Your task to perform on an android device: Toggle the flashlight Image 0: 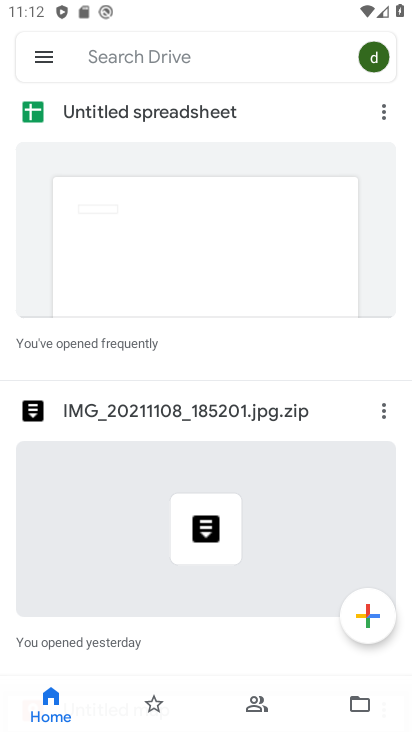
Step 0: press home button
Your task to perform on an android device: Toggle the flashlight Image 1: 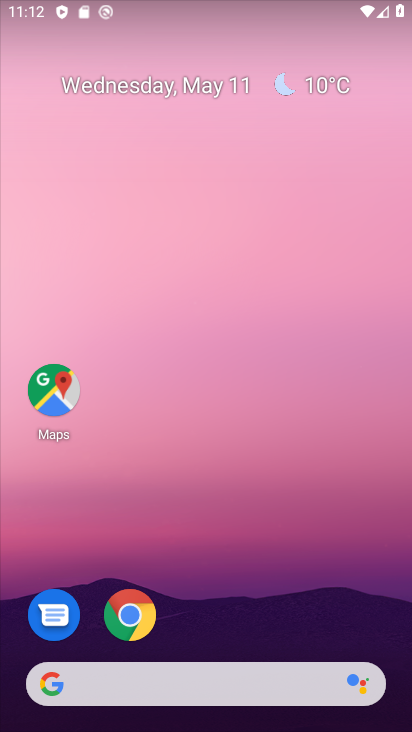
Step 1: drag from (257, 611) to (234, 28)
Your task to perform on an android device: Toggle the flashlight Image 2: 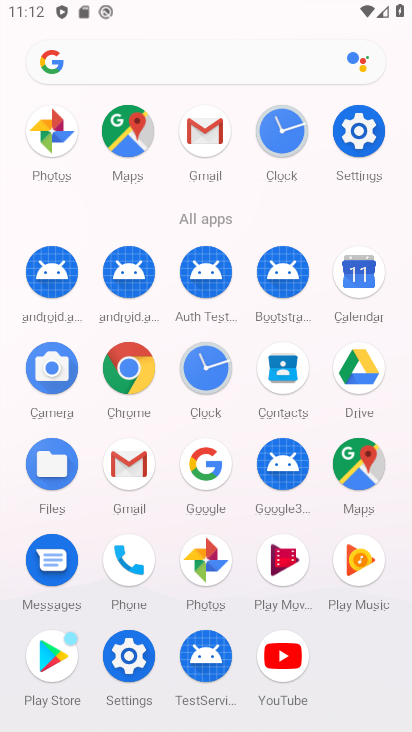
Step 2: click (359, 130)
Your task to perform on an android device: Toggle the flashlight Image 3: 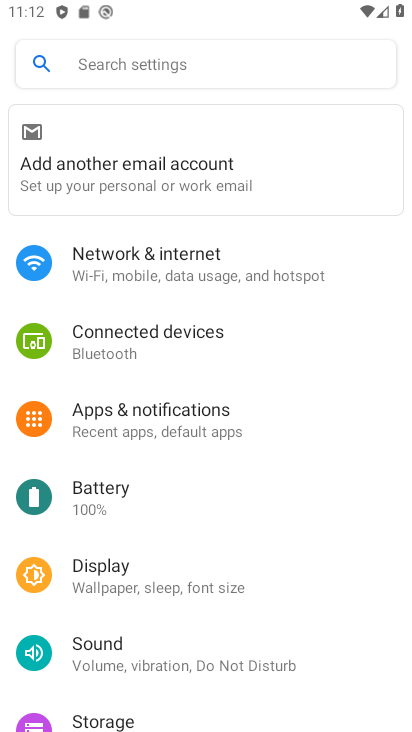
Step 3: drag from (119, 508) to (151, 397)
Your task to perform on an android device: Toggle the flashlight Image 4: 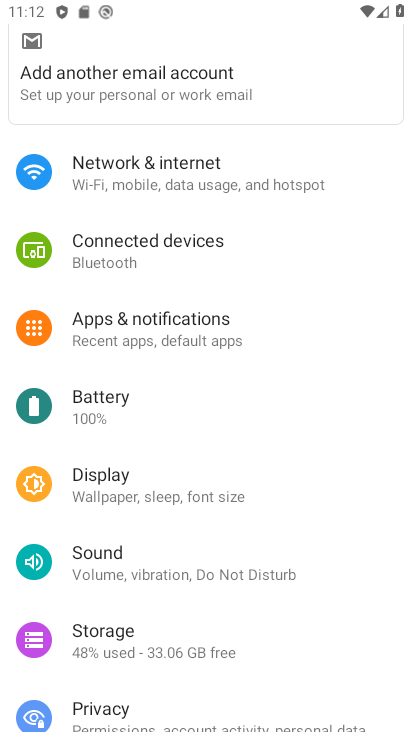
Step 4: click (111, 494)
Your task to perform on an android device: Toggle the flashlight Image 5: 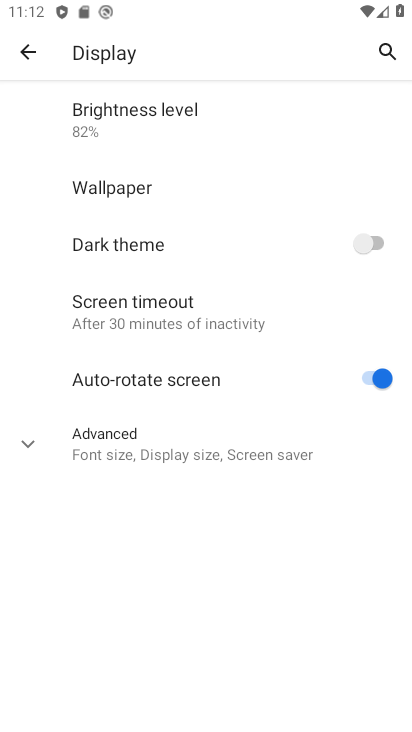
Step 5: click (173, 461)
Your task to perform on an android device: Toggle the flashlight Image 6: 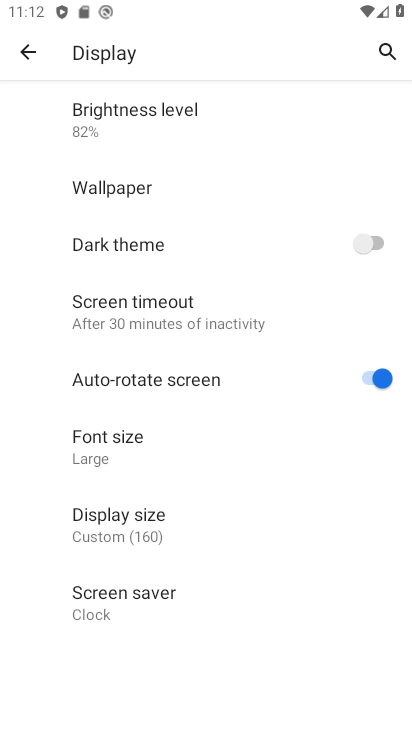
Step 6: drag from (189, 636) to (186, 462)
Your task to perform on an android device: Toggle the flashlight Image 7: 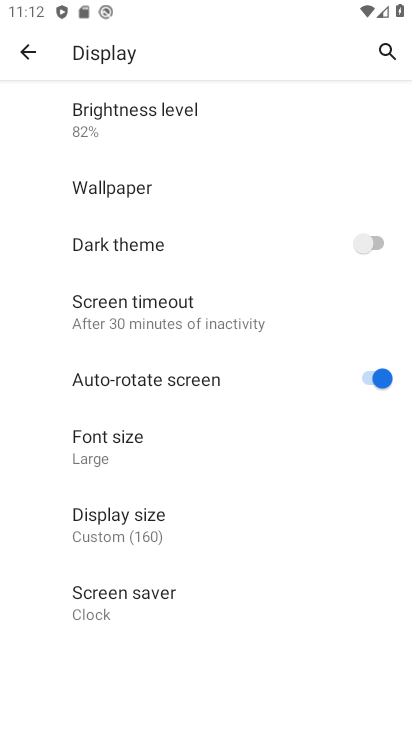
Step 7: press back button
Your task to perform on an android device: Toggle the flashlight Image 8: 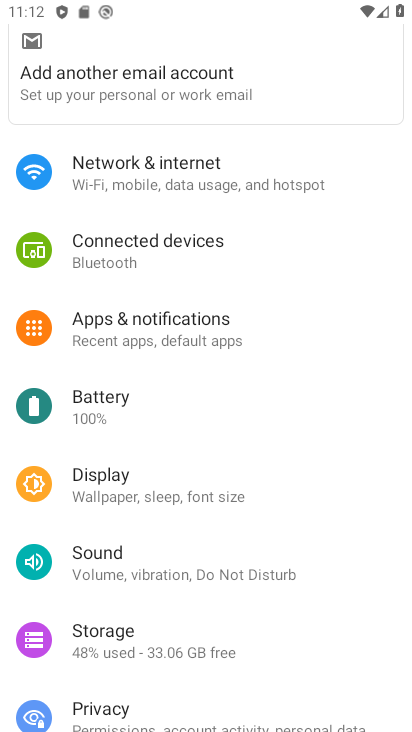
Step 8: drag from (171, 544) to (235, 427)
Your task to perform on an android device: Toggle the flashlight Image 9: 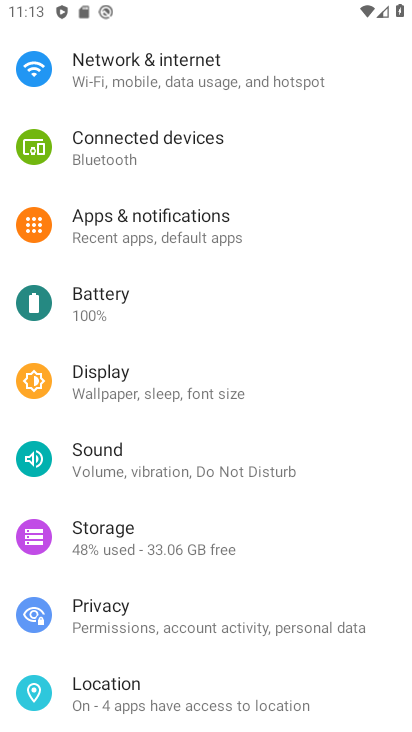
Step 9: drag from (152, 543) to (203, 441)
Your task to perform on an android device: Toggle the flashlight Image 10: 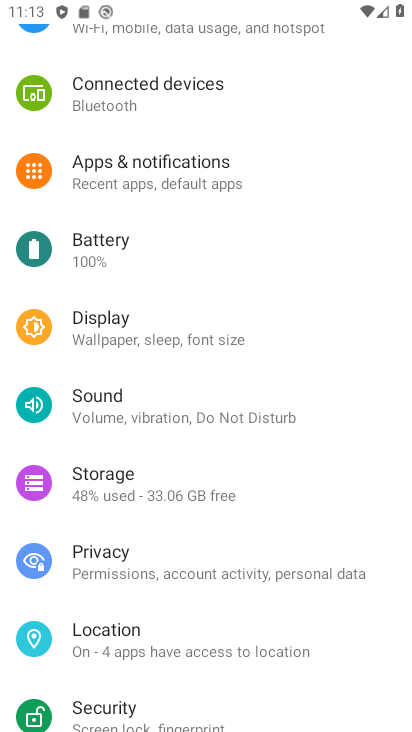
Step 10: drag from (173, 599) to (225, 487)
Your task to perform on an android device: Toggle the flashlight Image 11: 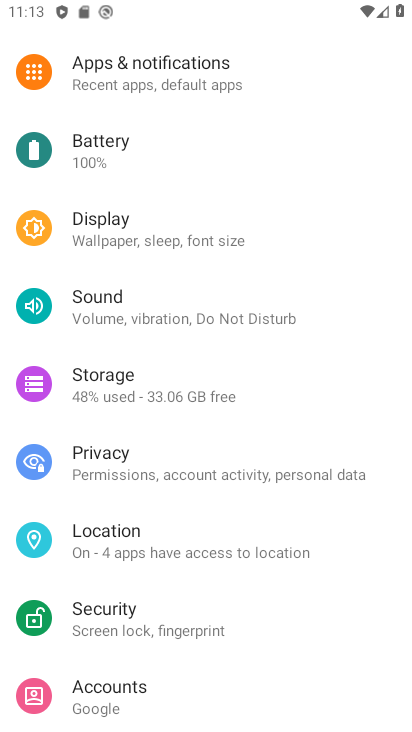
Step 11: drag from (189, 604) to (264, 485)
Your task to perform on an android device: Toggle the flashlight Image 12: 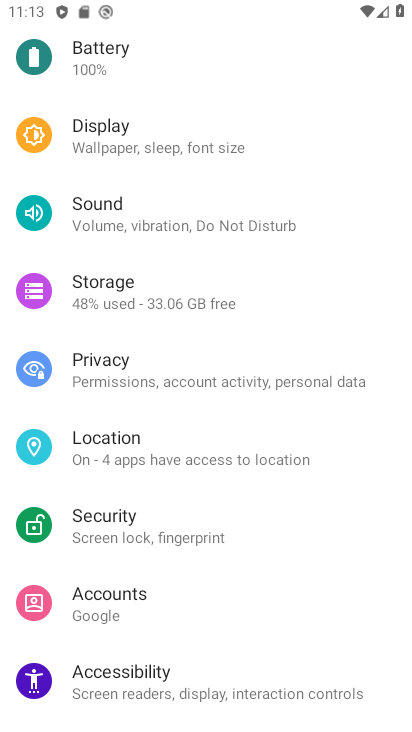
Step 12: drag from (178, 642) to (270, 531)
Your task to perform on an android device: Toggle the flashlight Image 13: 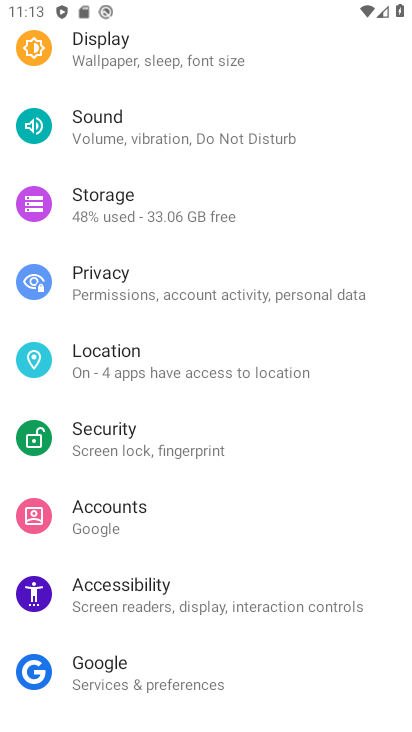
Step 13: drag from (169, 469) to (212, 318)
Your task to perform on an android device: Toggle the flashlight Image 14: 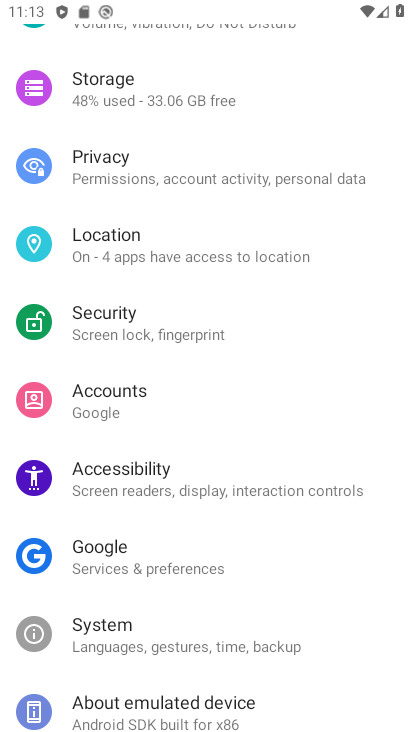
Step 14: drag from (212, 523) to (273, 389)
Your task to perform on an android device: Toggle the flashlight Image 15: 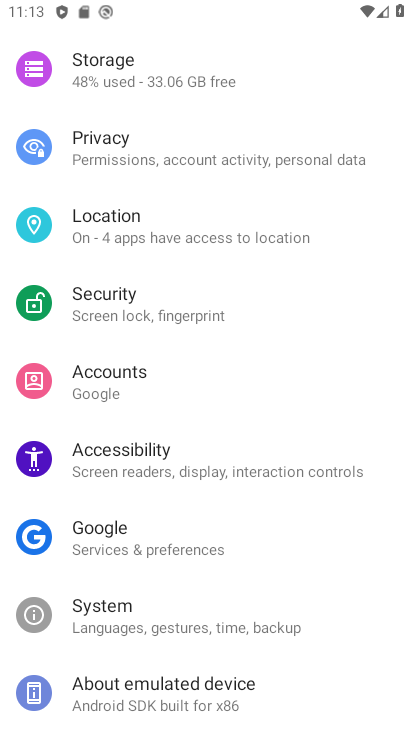
Step 15: click (197, 467)
Your task to perform on an android device: Toggle the flashlight Image 16: 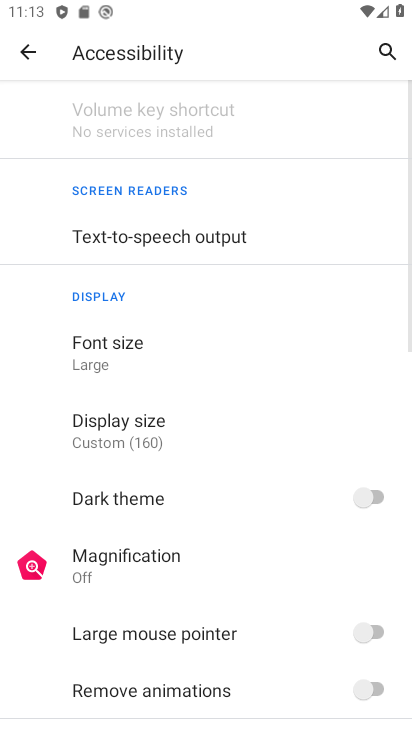
Step 16: task complete